Your task to perform on an android device: all mails in gmail Image 0: 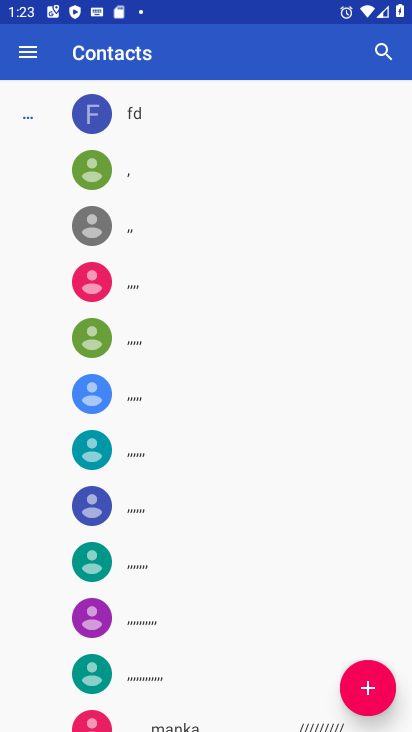
Step 0: press home button
Your task to perform on an android device: all mails in gmail Image 1: 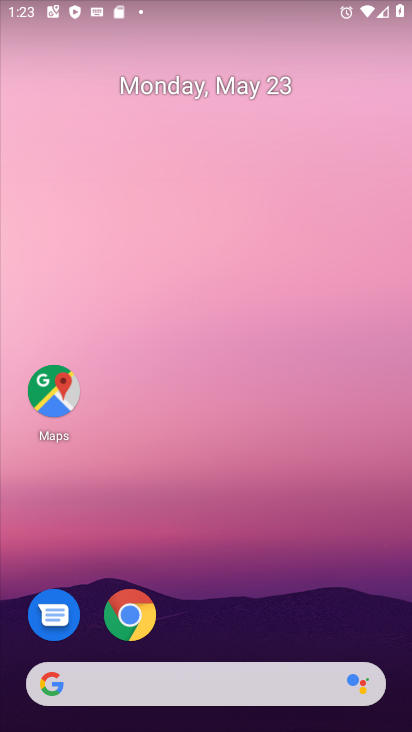
Step 1: drag from (213, 721) to (245, 221)
Your task to perform on an android device: all mails in gmail Image 2: 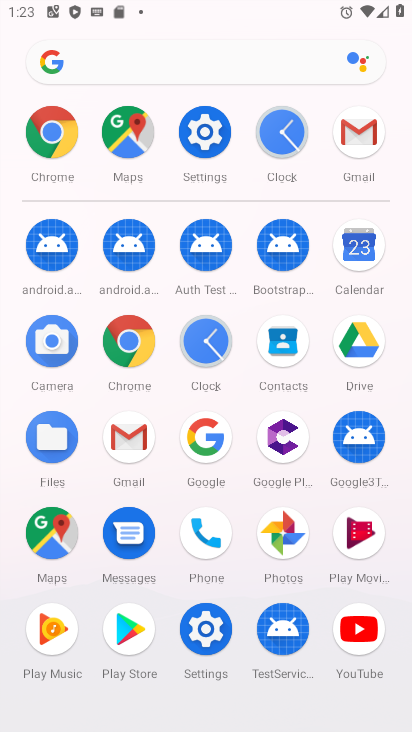
Step 2: click (125, 429)
Your task to perform on an android device: all mails in gmail Image 3: 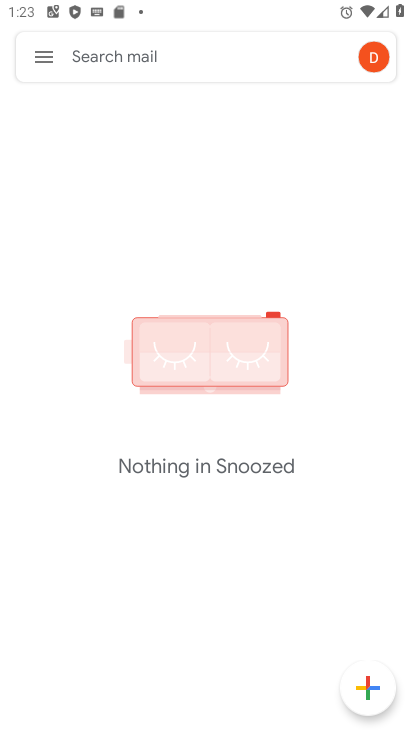
Step 3: click (45, 58)
Your task to perform on an android device: all mails in gmail Image 4: 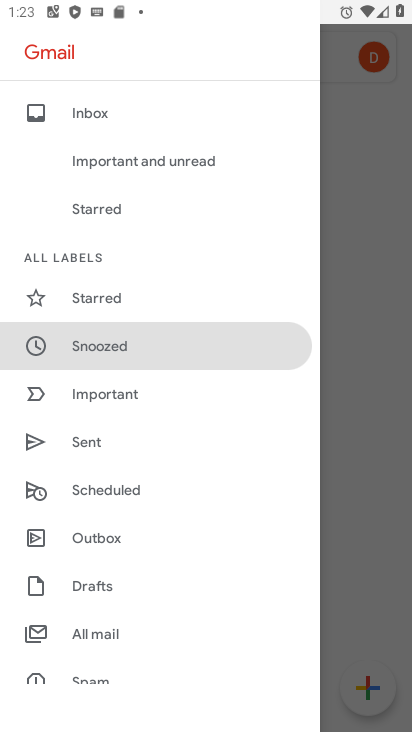
Step 4: click (105, 630)
Your task to perform on an android device: all mails in gmail Image 5: 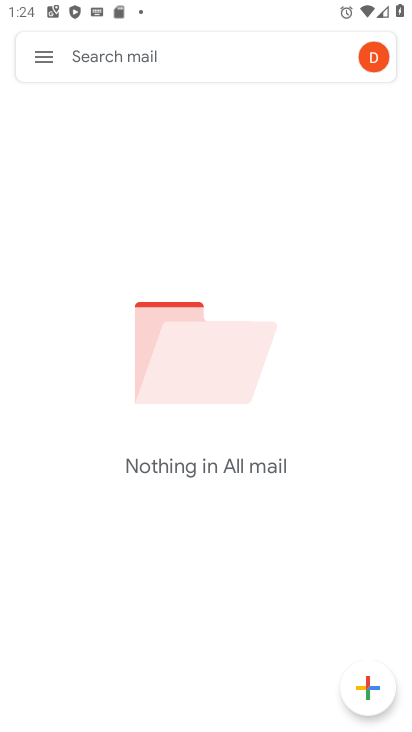
Step 5: task complete